Your task to perform on an android device: delete location history Image 0: 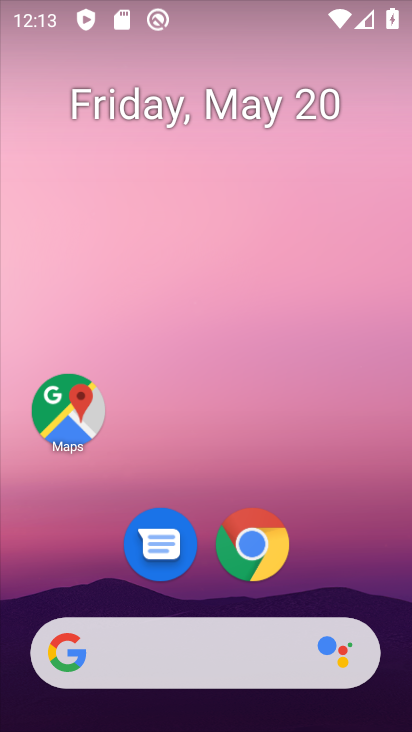
Step 0: drag from (315, 577) to (342, 119)
Your task to perform on an android device: delete location history Image 1: 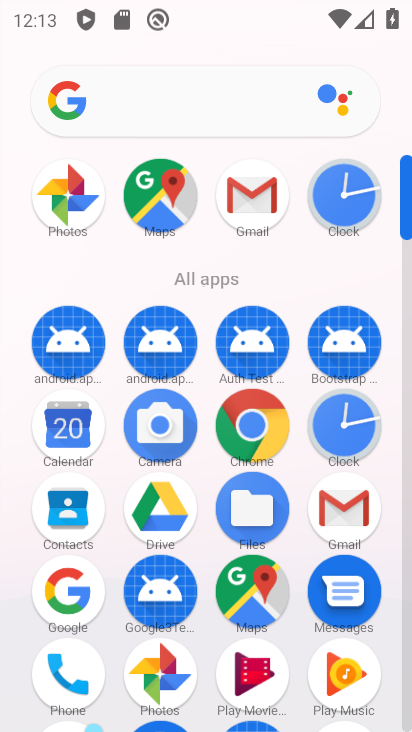
Step 1: drag from (283, 544) to (320, 195)
Your task to perform on an android device: delete location history Image 2: 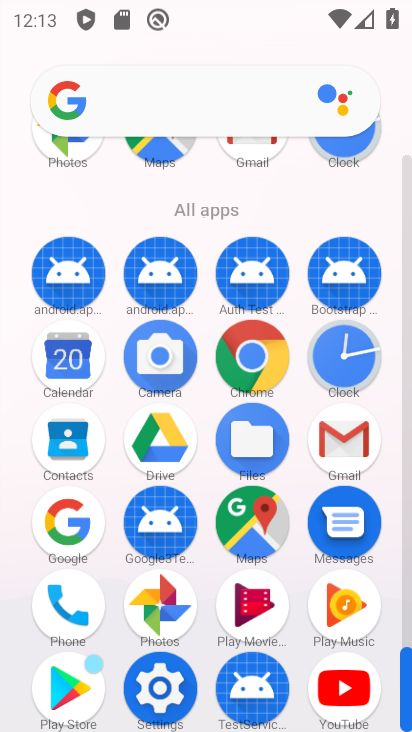
Step 2: click (177, 688)
Your task to perform on an android device: delete location history Image 3: 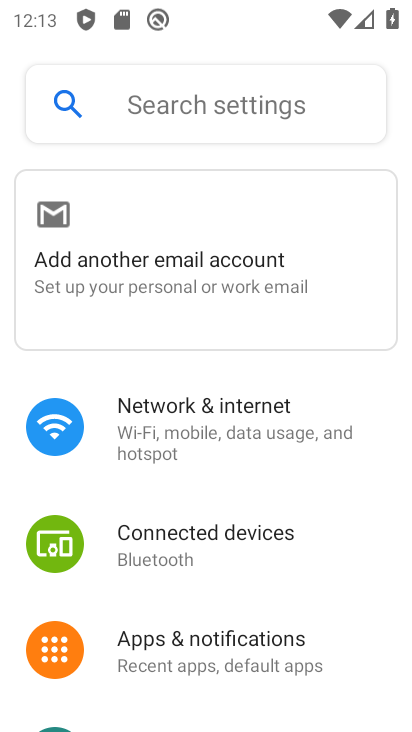
Step 3: drag from (279, 636) to (321, 214)
Your task to perform on an android device: delete location history Image 4: 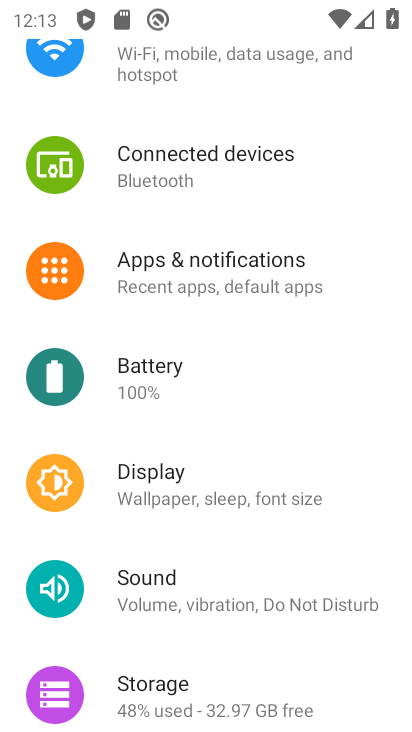
Step 4: drag from (260, 626) to (295, 234)
Your task to perform on an android device: delete location history Image 5: 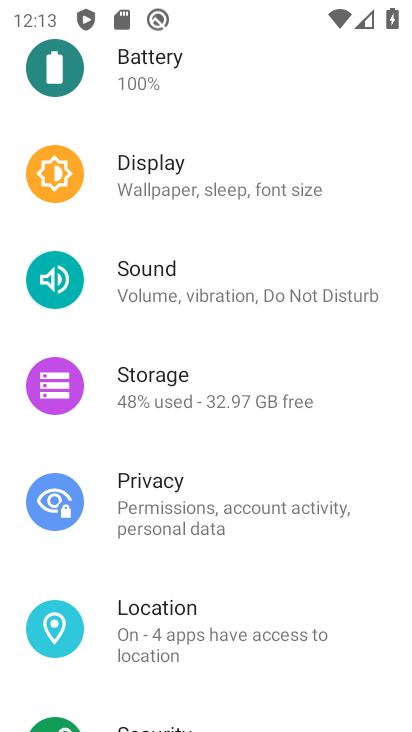
Step 5: click (264, 637)
Your task to perform on an android device: delete location history Image 6: 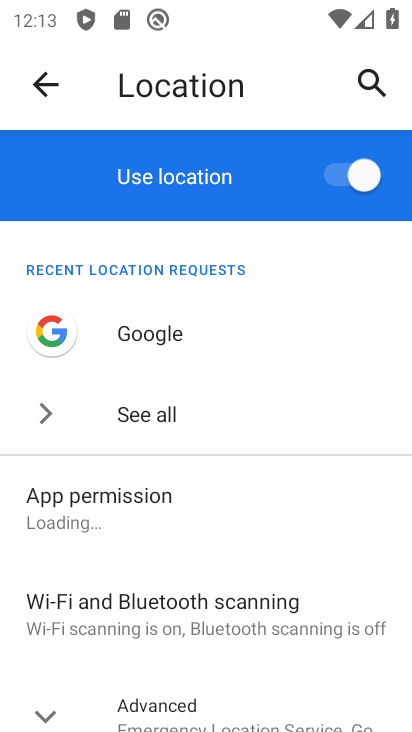
Step 6: drag from (254, 587) to (266, 208)
Your task to perform on an android device: delete location history Image 7: 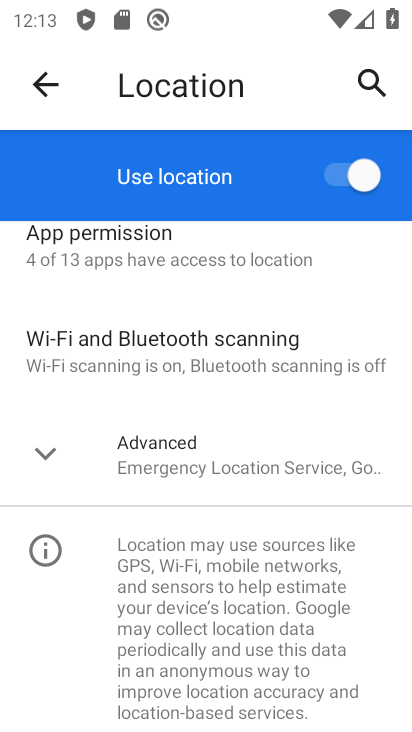
Step 7: click (225, 454)
Your task to perform on an android device: delete location history Image 8: 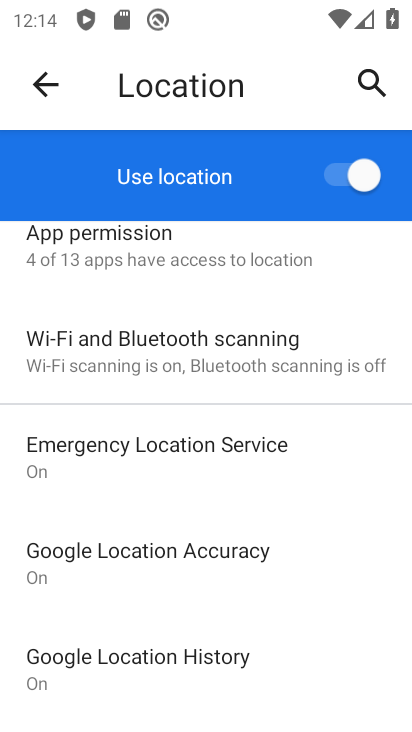
Step 8: drag from (283, 632) to (355, 281)
Your task to perform on an android device: delete location history Image 9: 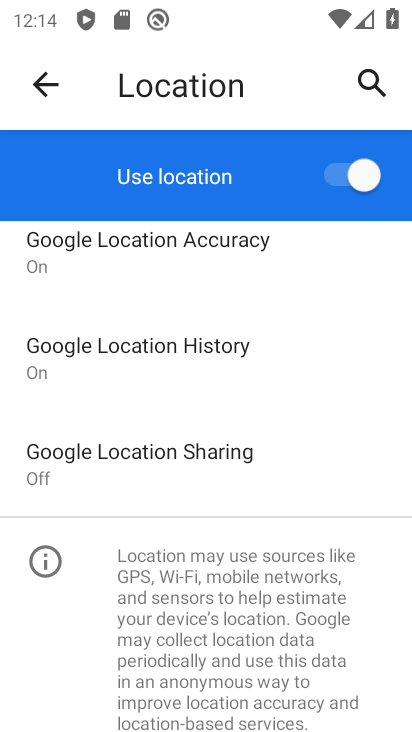
Step 9: click (251, 351)
Your task to perform on an android device: delete location history Image 10: 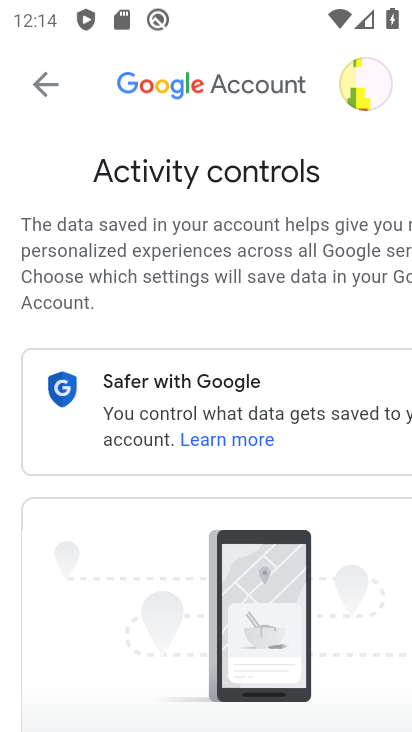
Step 10: drag from (205, 532) to (271, 215)
Your task to perform on an android device: delete location history Image 11: 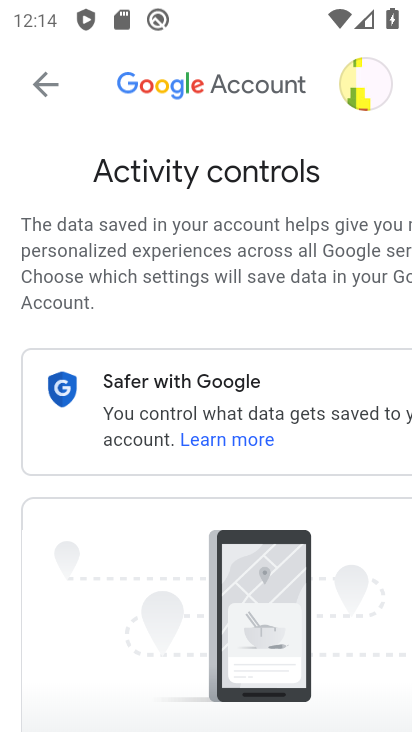
Step 11: drag from (155, 571) to (200, 170)
Your task to perform on an android device: delete location history Image 12: 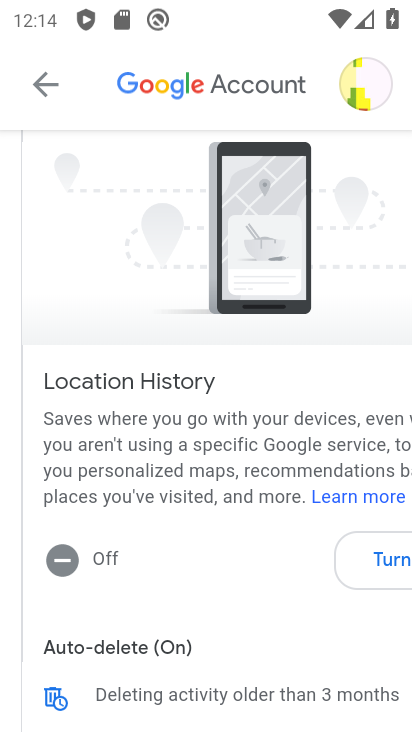
Step 12: drag from (230, 561) to (249, 250)
Your task to perform on an android device: delete location history Image 13: 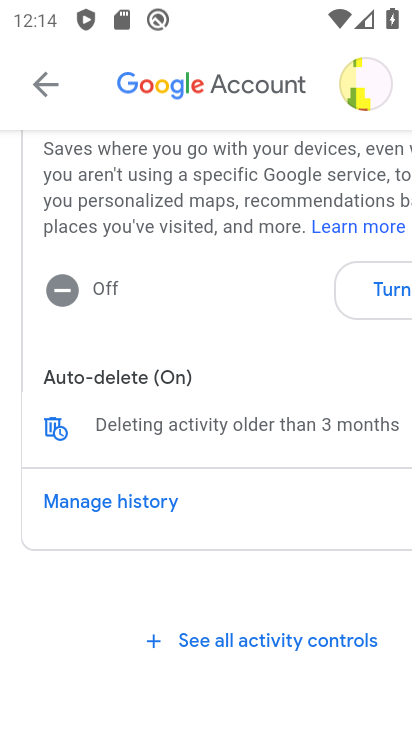
Step 13: click (132, 424)
Your task to perform on an android device: delete location history Image 14: 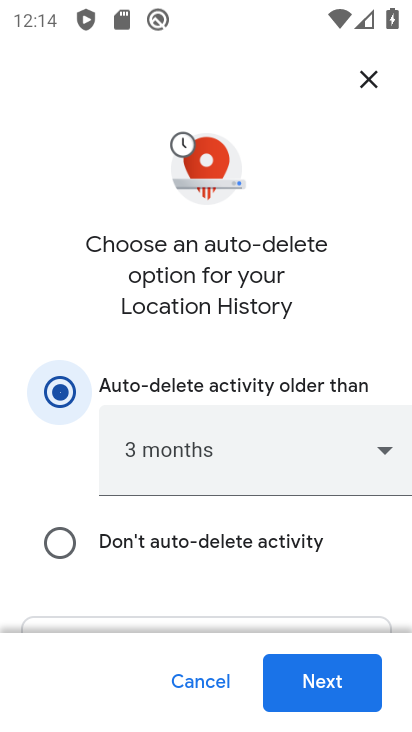
Step 14: click (309, 692)
Your task to perform on an android device: delete location history Image 15: 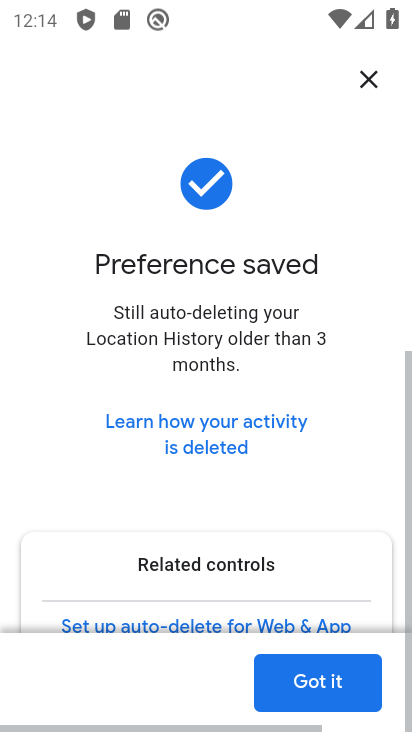
Step 15: click (352, 676)
Your task to perform on an android device: delete location history Image 16: 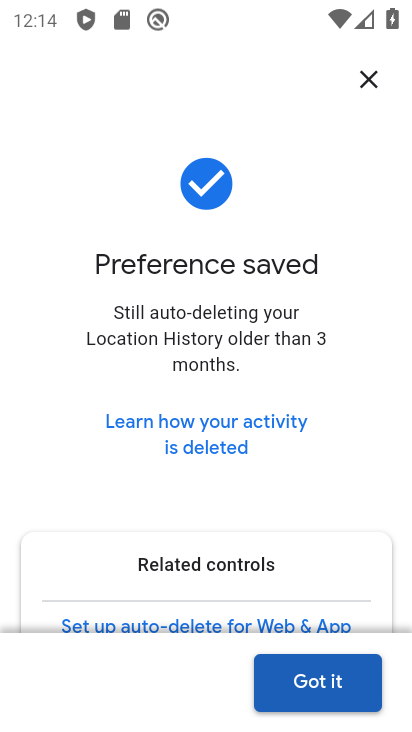
Step 16: click (347, 700)
Your task to perform on an android device: delete location history Image 17: 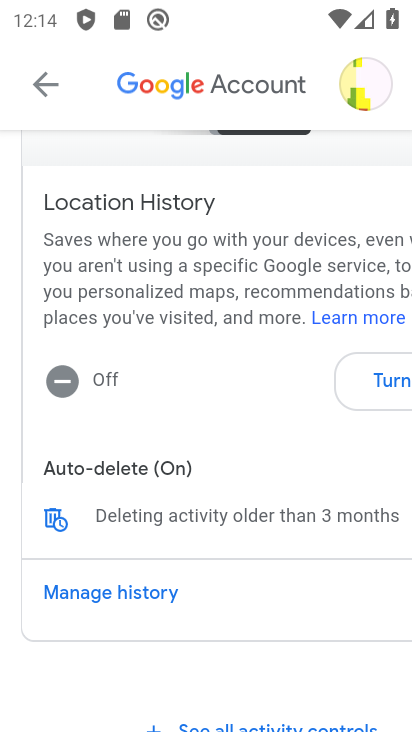
Step 17: task complete